Your task to perform on an android device: Go to sound settings Image 0: 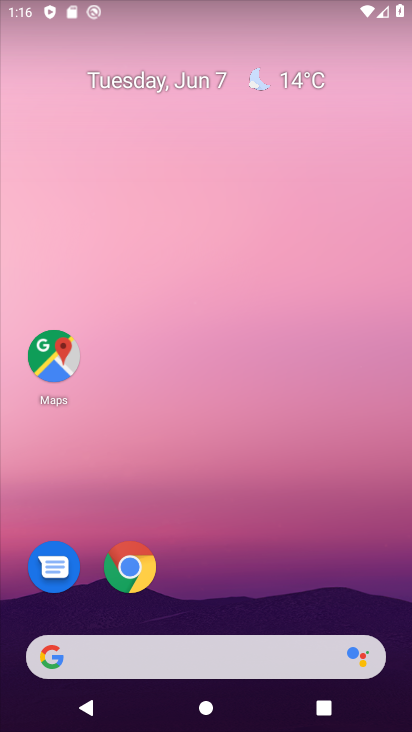
Step 0: drag from (199, 500) to (194, 92)
Your task to perform on an android device: Go to sound settings Image 1: 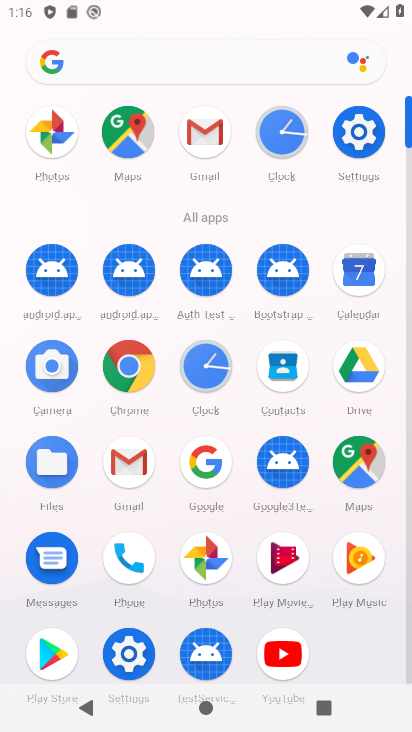
Step 1: click (365, 147)
Your task to perform on an android device: Go to sound settings Image 2: 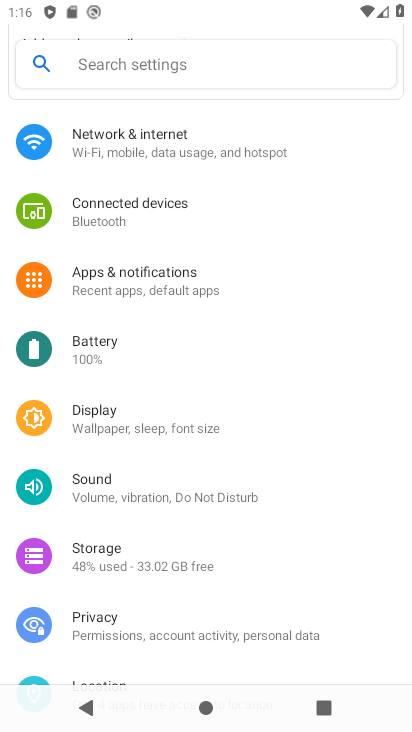
Step 2: click (127, 480)
Your task to perform on an android device: Go to sound settings Image 3: 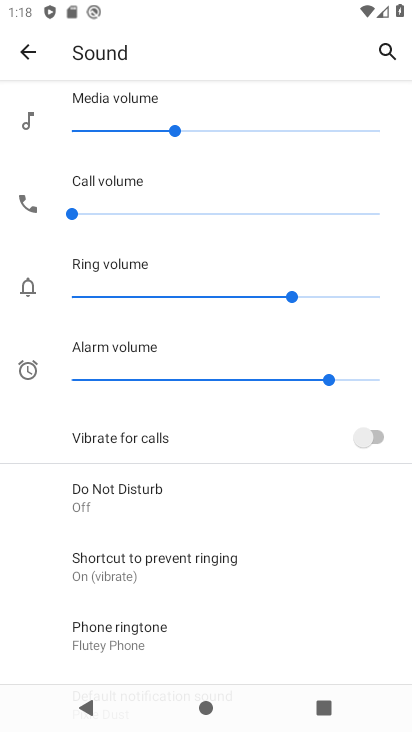
Step 3: task complete